Your task to perform on an android device: change notification settings in the gmail app Image 0: 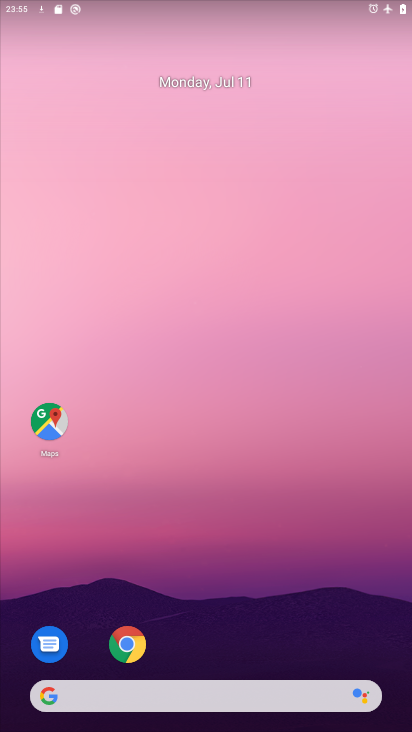
Step 0: drag from (163, 666) to (163, 195)
Your task to perform on an android device: change notification settings in the gmail app Image 1: 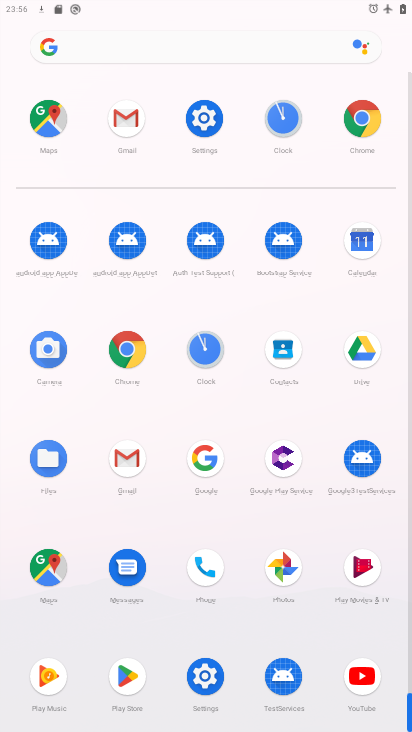
Step 1: click (114, 105)
Your task to perform on an android device: change notification settings in the gmail app Image 2: 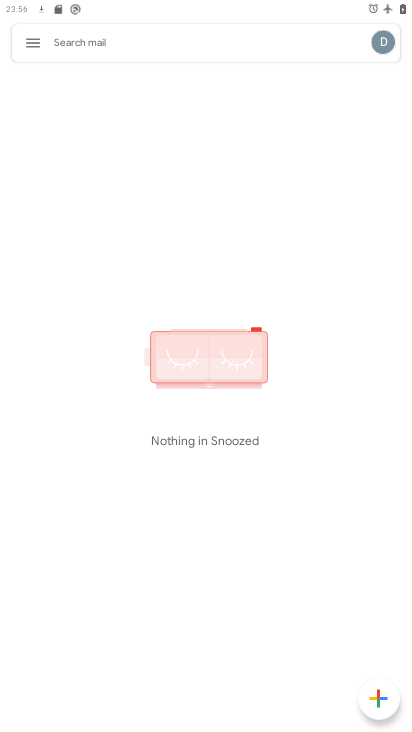
Step 2: click (28, 41)
Your task to perform on an android device: change notification settings in the gmail app Image 3: 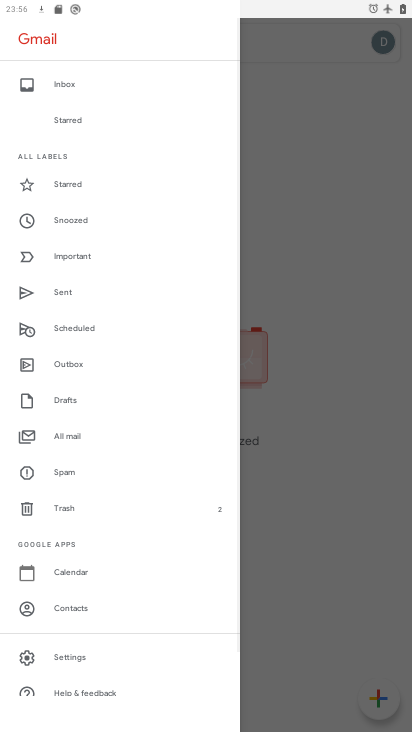
Step 3: click (83, 645)
Your task to perform on an android device: change notification settings in the gmail app Image 4: 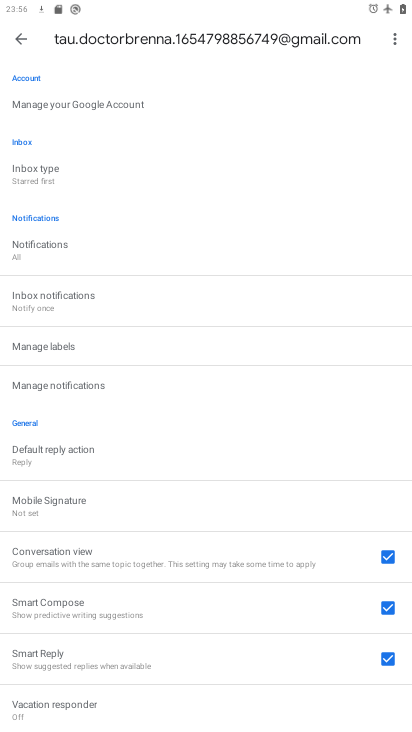
Step 4: click (69, 238)
Your task to perform on an android device: change notification settings in the gmail app Image 5: 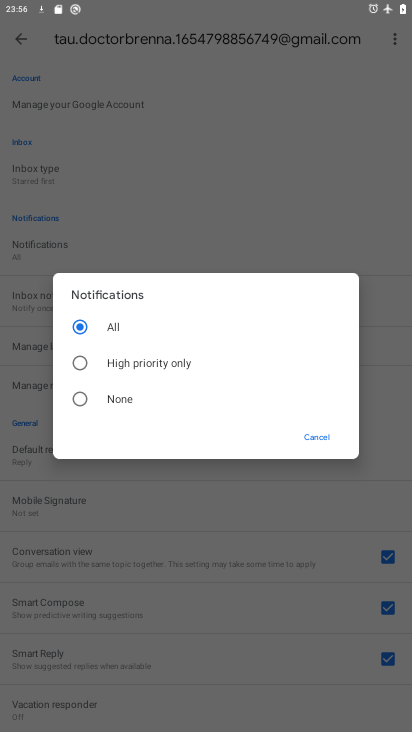
Step 5: click (123, 403)
Your task to perform on an android device: change notification settings in the gmail app Image 6: 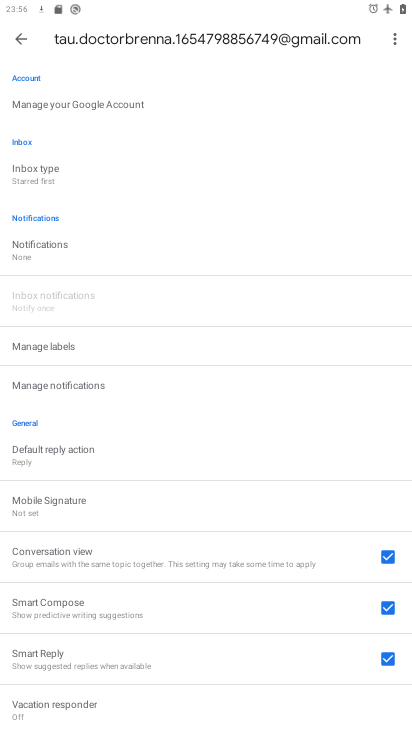
Step 6: task complete